Your task to perform on an android device: Play the last video I watched on Youtube Image 0: 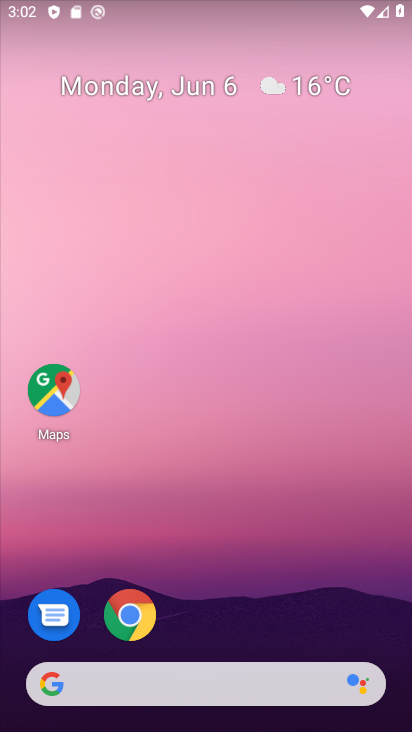
Step 0: drag from (254, 551) to (261, 86)
Your task to perform on an android device: Play the last video I watched on Youtube Image 1: 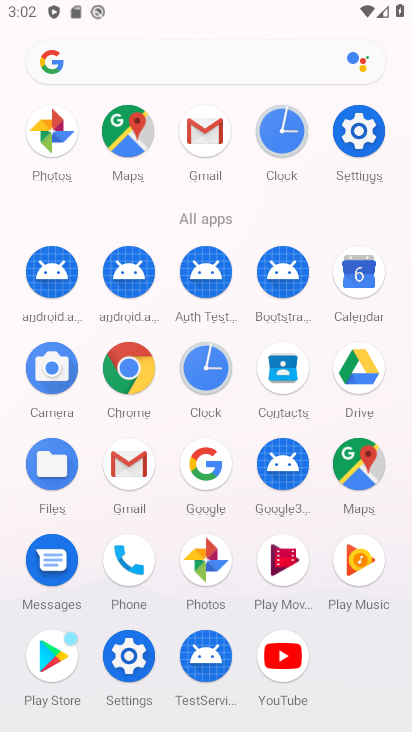
Step 1: click (277, 671)
Your task to perform on an android device: Play the last video I watched on Youtube Image 2: 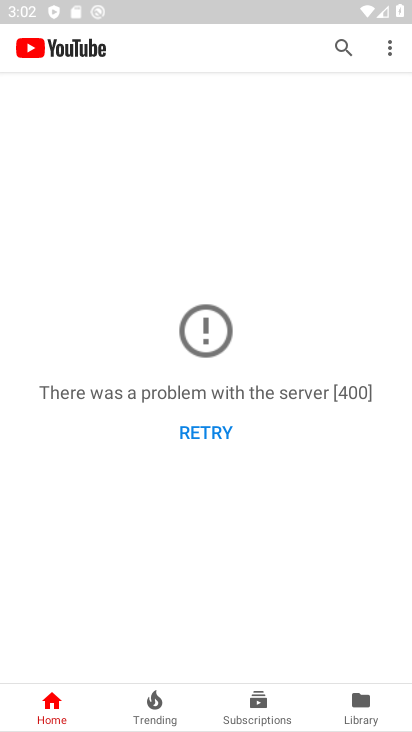
Step 2: click (366, 707)
Your task to perform on an android device: Play the last video I watched on Youtube Image 3: 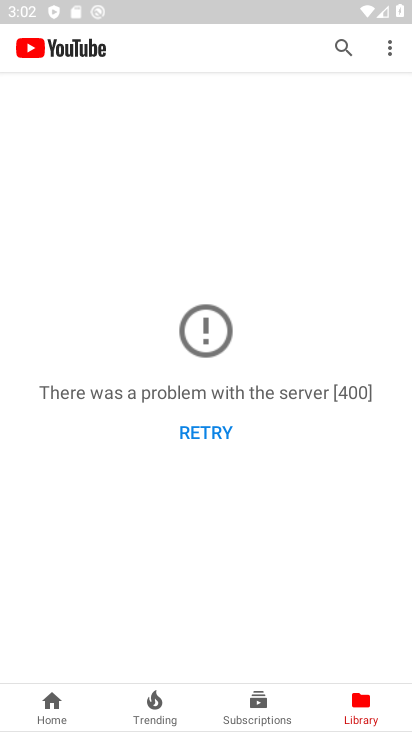
Step 3: click (341, 704)
Your task to perform on an android device: Play the last video I watched on Youtube Image 4: 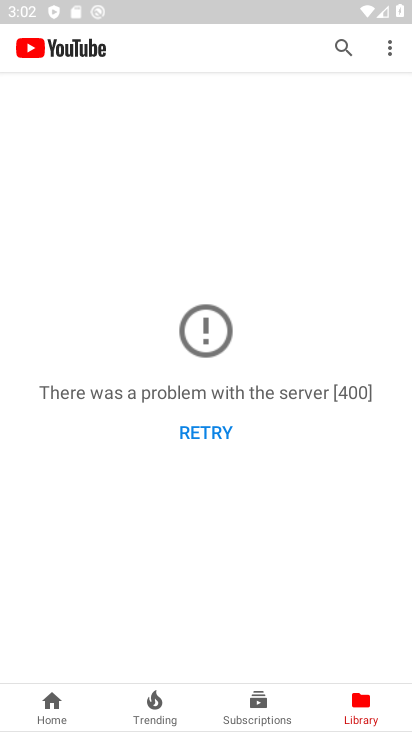
Step 4: task complete